Your task to perform on an android device: Open Yahoo.com Image 0: 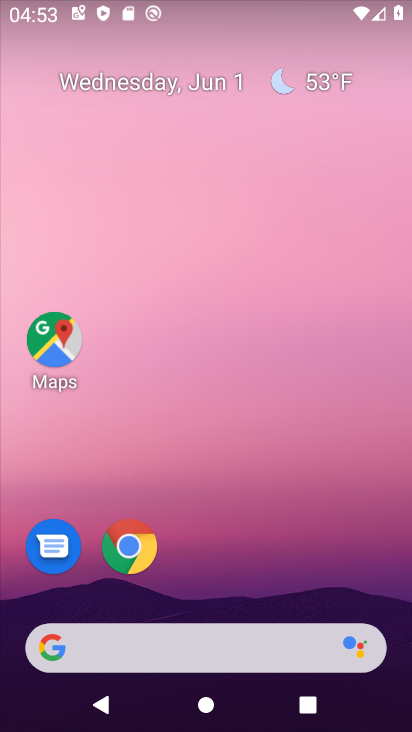
Step 0: click (130, 553)
Your task to perform on an android device: Open Yahoo.com Image 1: 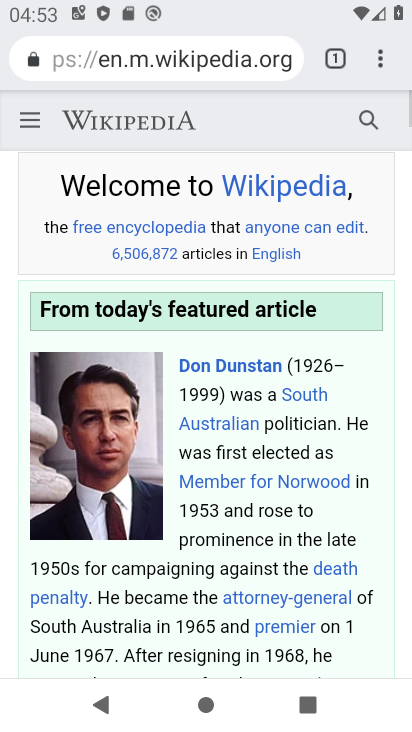
Step 1: click (376, 53)
Your task to perform on an android device: Open Yahoo.com Image 2: 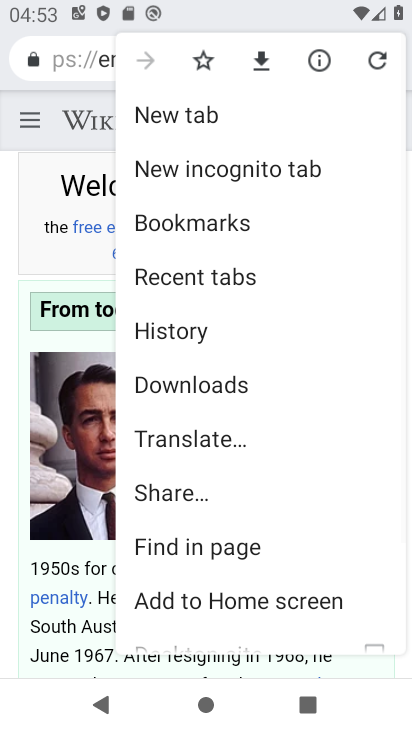
Step 2: click (173, 107)
Your task to perform on an android device: Open Yahoo.com Image 3: 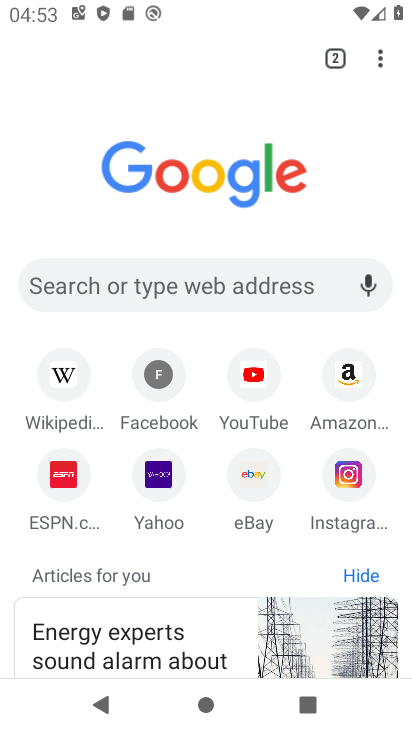
Step 3: click (151, 463)
Your task to perform on an android device: Open Yahoo.com Image 4: 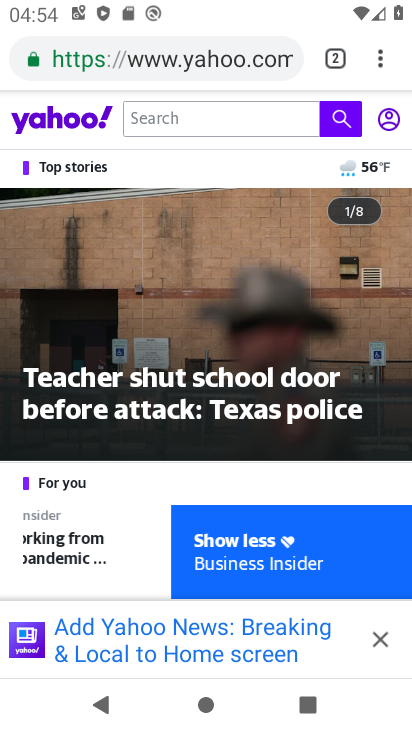
Step 4: task complete